Your task to perform on an android device: Search for Italian restaurants on Maps Image 0: 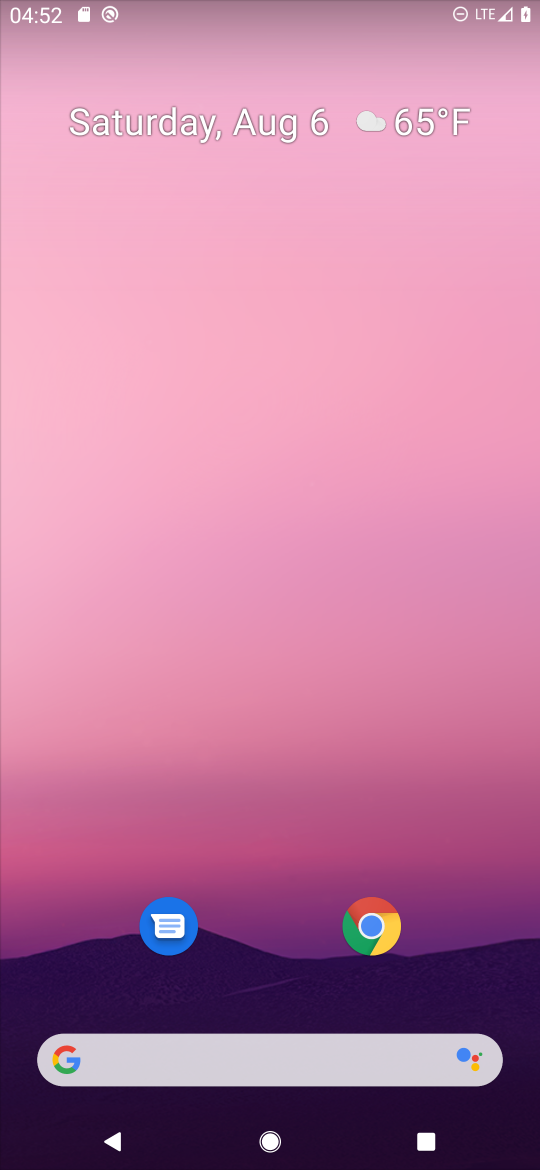
Step 0: drag from (262, 915) to (282, 329)
Your task to perform on an android device: Search for Italian restaurants on Maps Image 1: 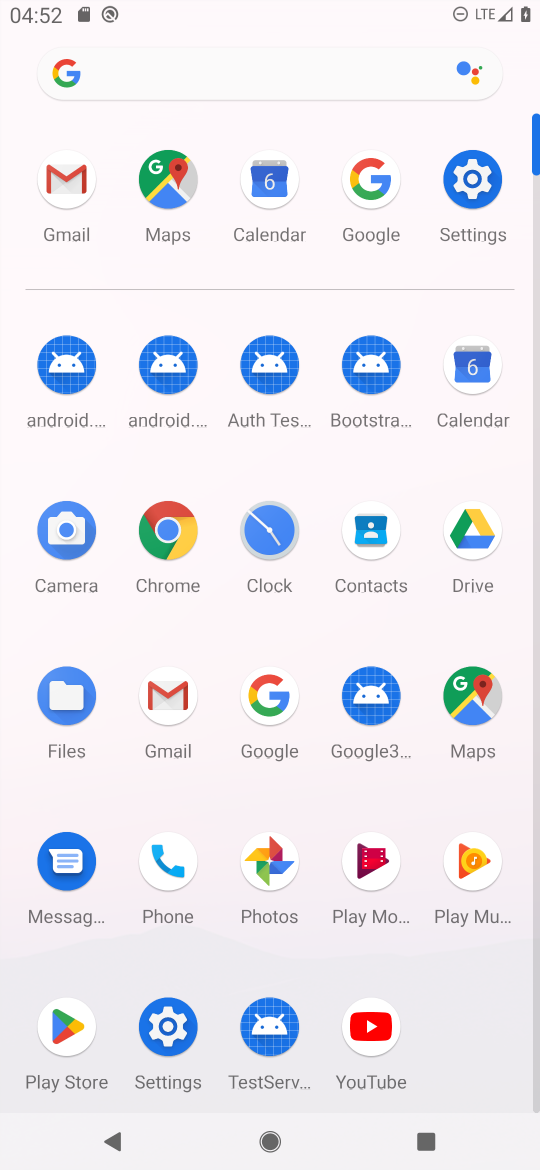
Step 1: click (464, 708)
Your task to perform on an android device: Search for Italian restaurants on Maps Image 2: 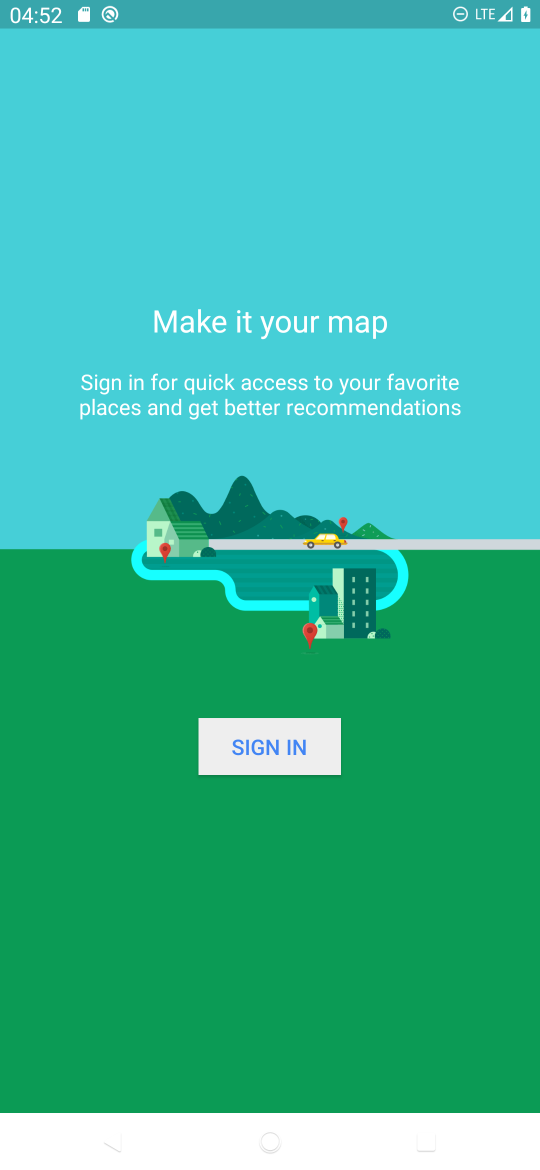
Step 2: task complete